Your task to perform on an android device: Search for seafood restaurants on Google Maps Image 0: 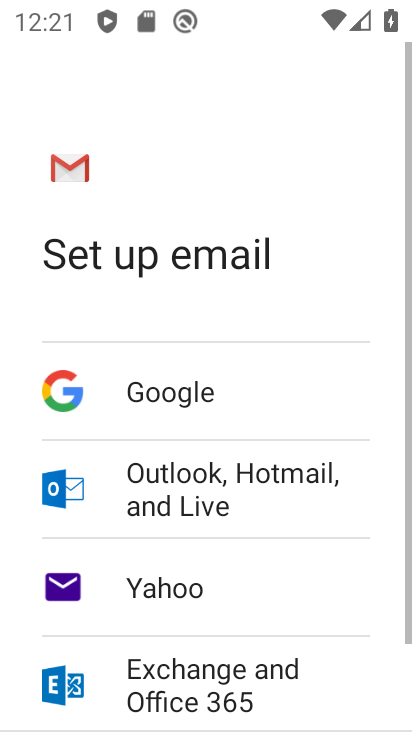
Step 0: press home button
Your task to perform on an android device: Search for seafood restaurants on Google Maps Image 1: 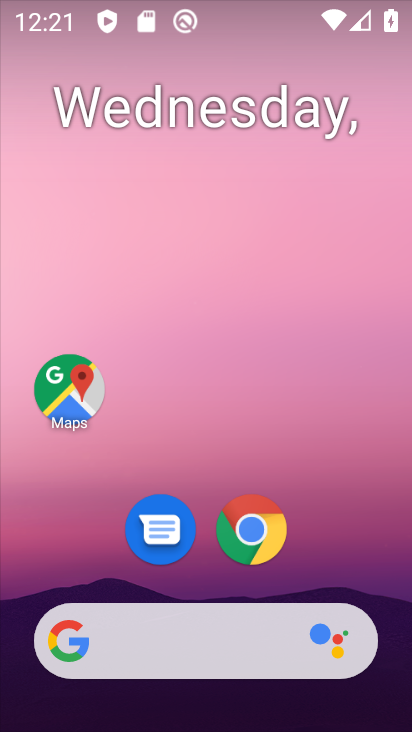
Step 1: click (71, 384)
Your task to perform on an android device: Search for seafood restaurants on Google Maps Image 2: 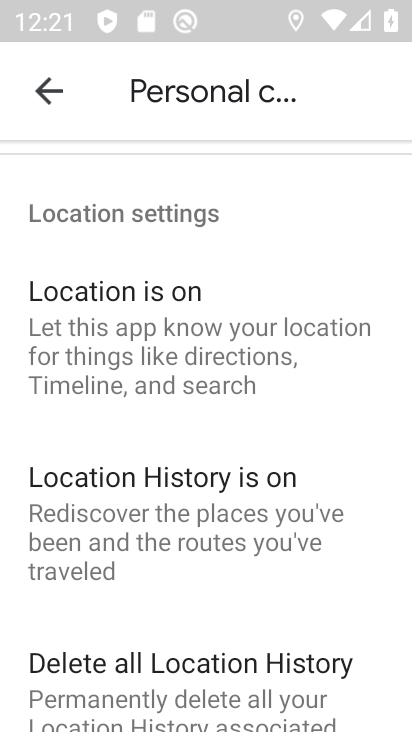
Step 2: press back button
Your task to perform on an android device: Search for seafood restaurants on Google Maps Image 3: 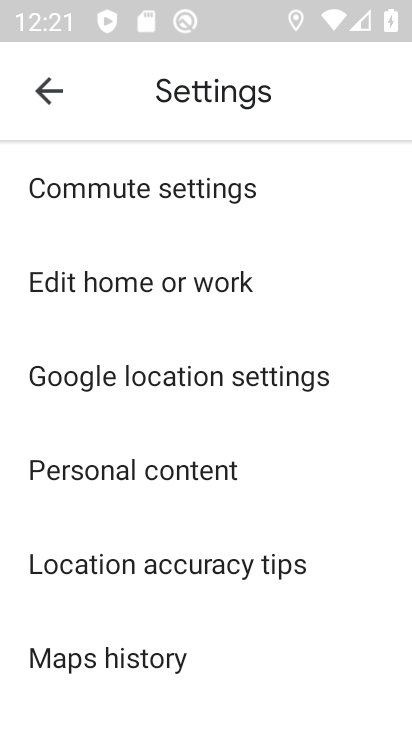
Step 3: press back button
Your task to perform on an android device: Search for seafood restaurants on Google Maps Image 4: 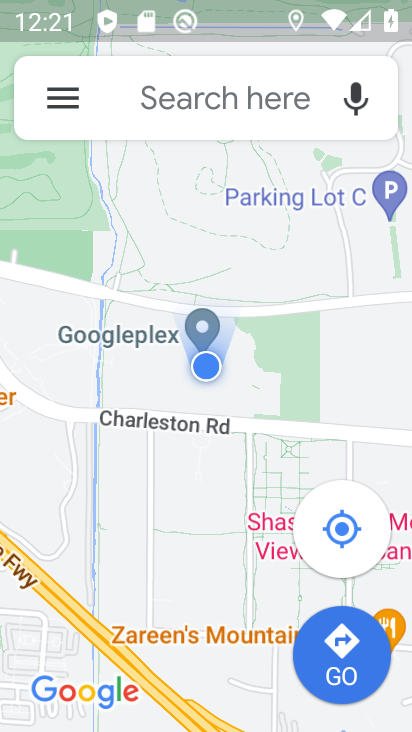
Step 4: click (205, 99)
Your task to perform on an android device: Search for seafood restaurants on Google Maps Image 5: 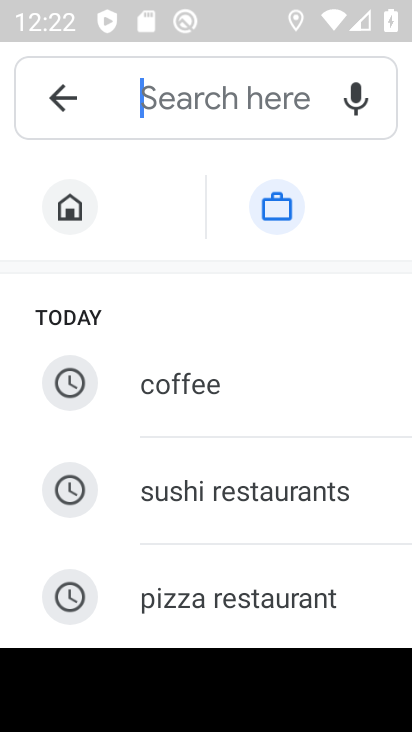
Step 5: type "seafood restaurants"
Your task to perform on an android device: Search for seafood restaurants on Google Maps Image 6: 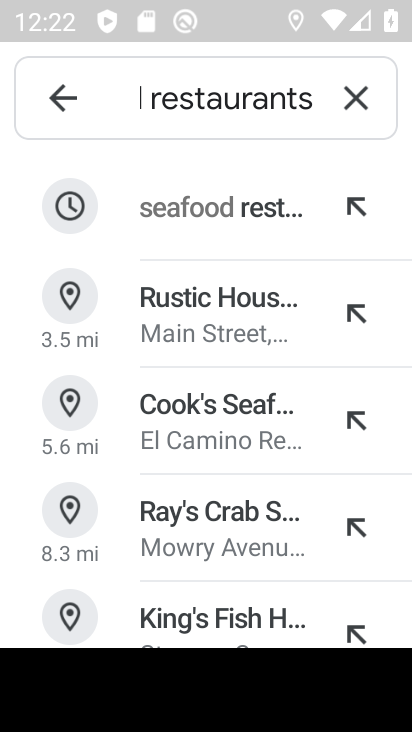
Step 6: click (187, 202)
Your task to perform on an android device: Search for seafood restaurants on Google Maps Image 7: 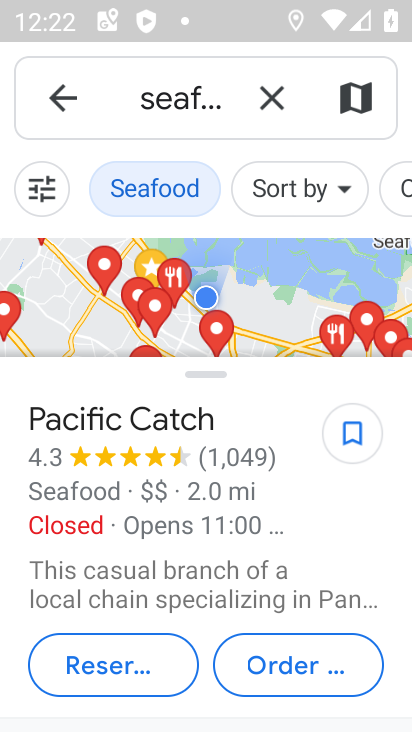
Step 7: task complete